Your task to perform on an android device: open wifi settings Image 0: 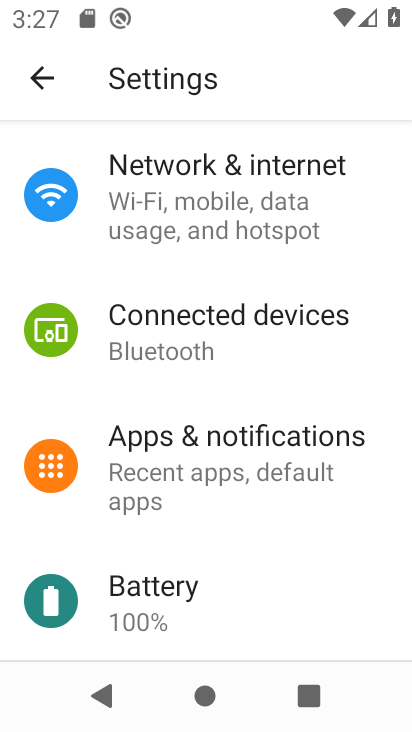
Step 0: click (260, 201)
Your task to perform on an android device: open wifi settings Image 1: 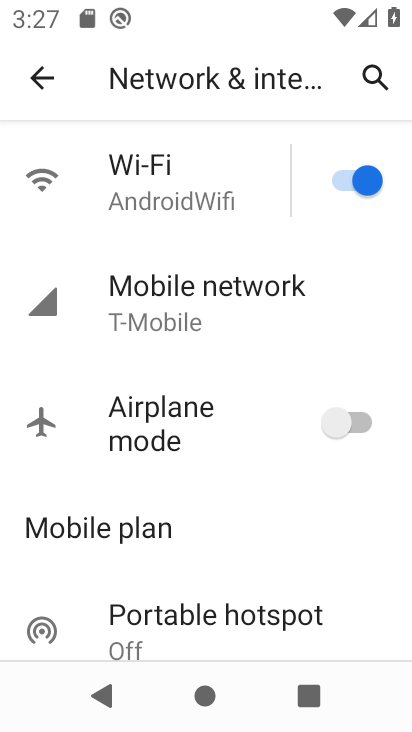
Step 1: click (183, 196)
Your task to perform on an android device: open wifi settings Image 2: 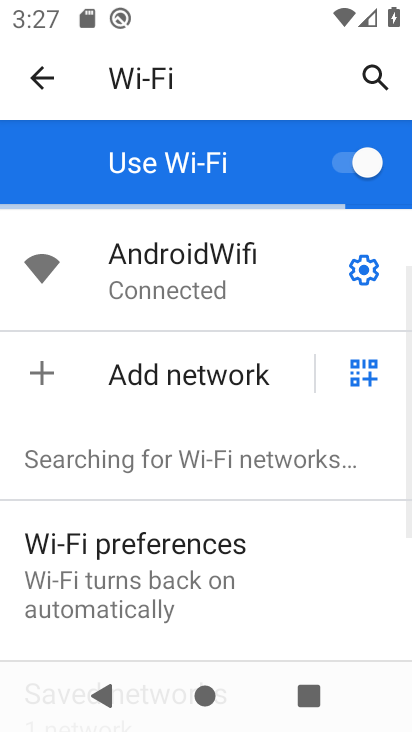
Step 2: click (362, 269)
Your task to perform on an android device: open wifi settings Image 3: 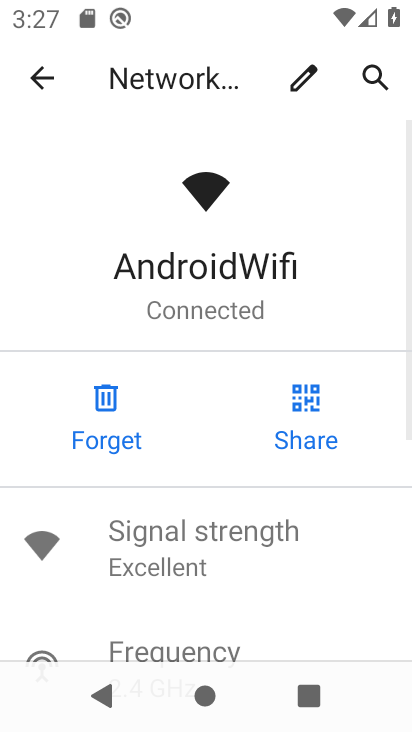
Step 3: task complete